Your task to perform on an android device: Open Google Chrome and click the shortcut for Amazon.com Image 0: 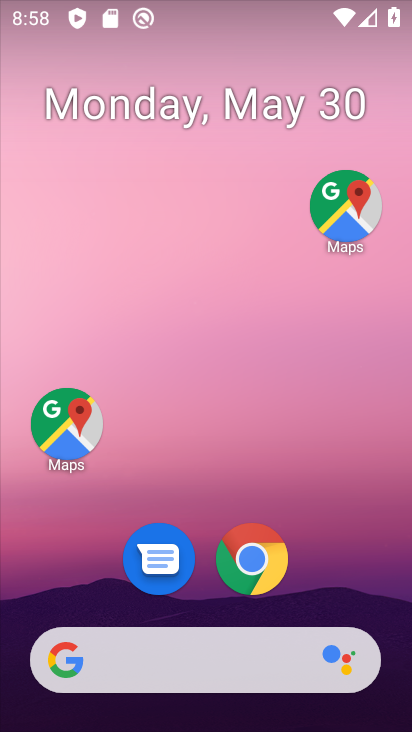
Step 0: drag from (344, 566) to (302, 123)
Your task to perform on an android device: Open Google Chrome and click the shortcut for Amazon.com Image 1: 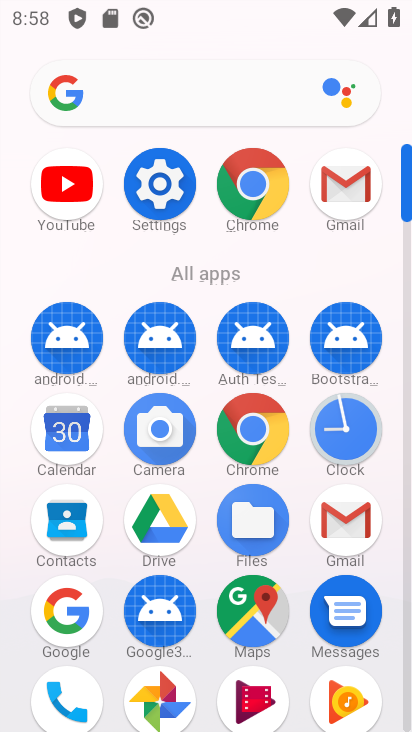
Step 1: click (253, 191)
Your task to perform on an android device: Open Google Chrome and click the shortcut for Amazon.com Image 2: 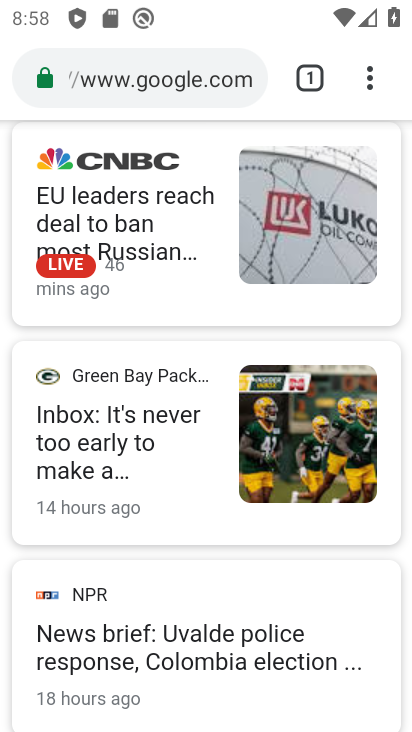
Step 2: drag from (361, 74) to (270, 129)
Your task to perform on an android device: Open Google Chrome and click the shortcut for Amazon.com Image 3: 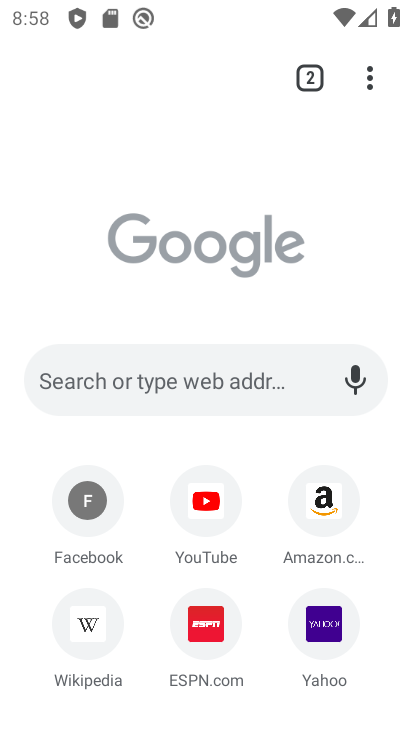
Step 3: click (328, 508)
Your task to perform on an android device: Open Google Chrome and click the shortcut for Amazon.com Image 4: 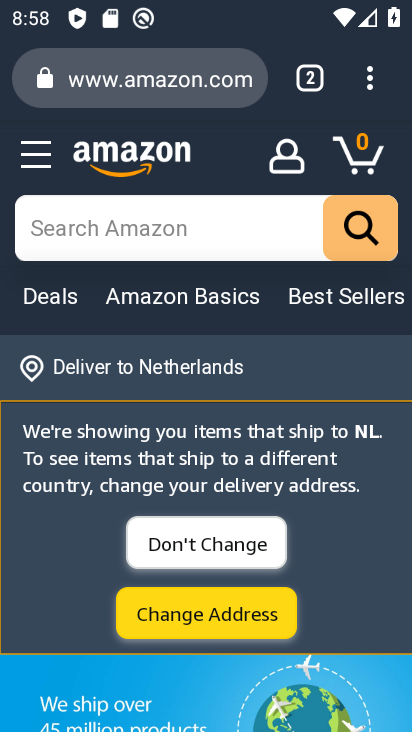
Step 4: task complete